Your task to perform on an android device: turn on the 24-hour format for clock Image 0: 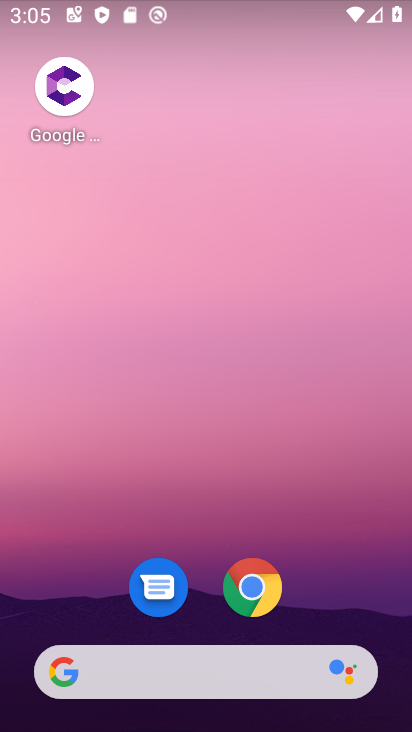
Step 0: drag from (52, 631) to (132, 252)
Your task to perform on an android device: turn on the 24-hour format for clock Image 1: 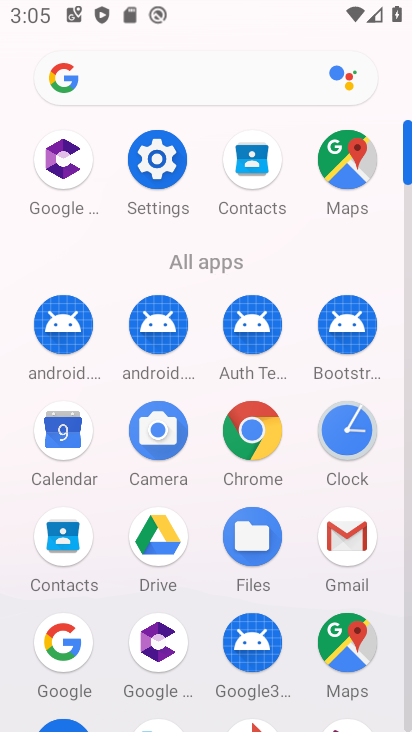
Step 1: click (366, 432)
Your task to perform on an android device: turn on the 24-hour format for clock Image 2: 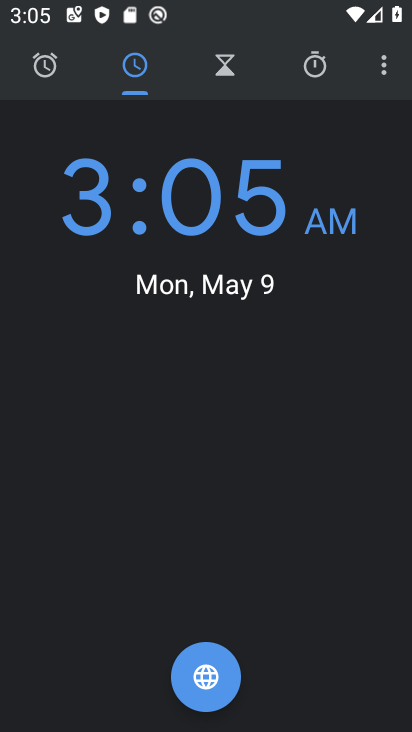
Step 2: click (386, 87)
Your task to perform on an android device: turn on the 24-hour format for clock Image 3: 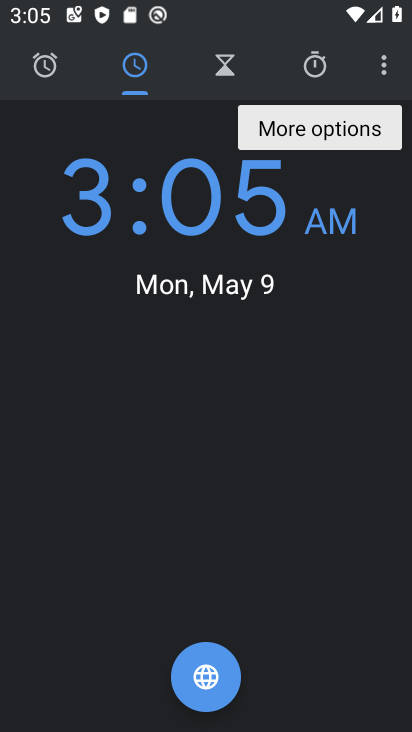
Step 3: click (383, 74)
Your task to perform on an android device: turn on the 24-hour format for clock Image 4: 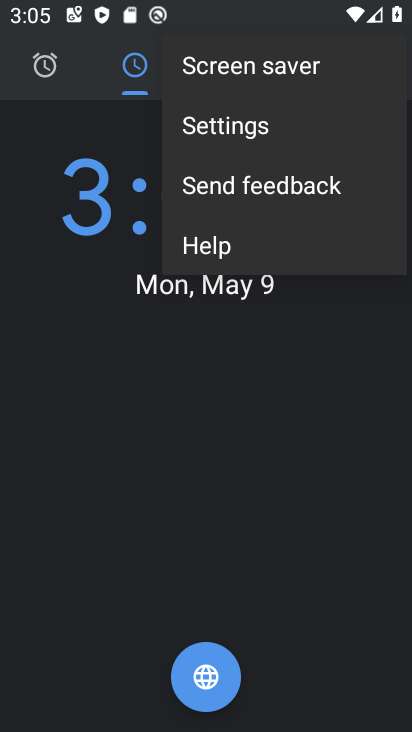
Step 4: click (340, 116)
Your task to perform on an android device: turn on the 24-hour format for clock Image 5: 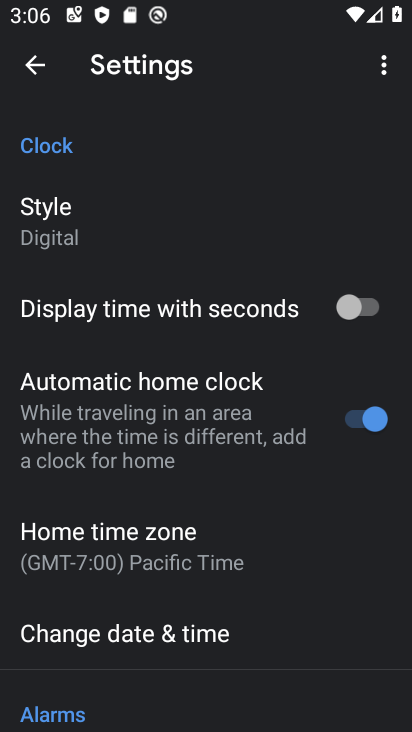
Step 5: click (233, 645)
Your task to perform on an android device: turn on the 24-hour format for clock Image 6: 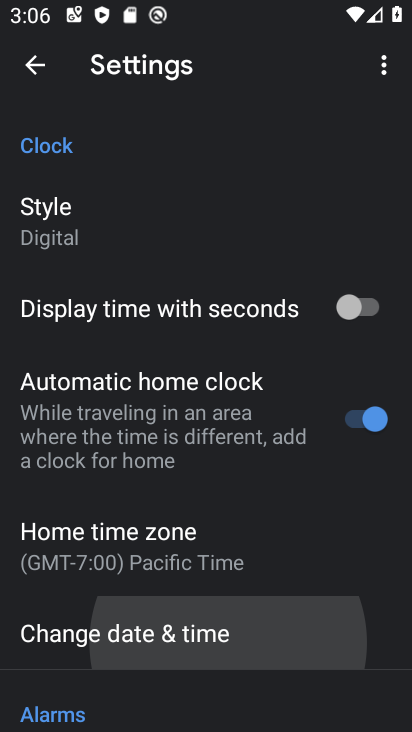
Step 6: click (233, 645)
Your task to perform on an android device: turn on the 24-hour format for clock Image 7: 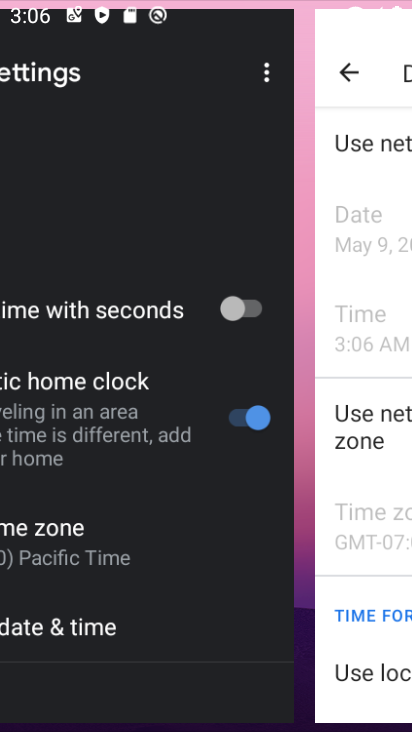
Step 7: click (233, 645)
Your task to perform on an android device: turn on the 24-hour format for clock Image 8: 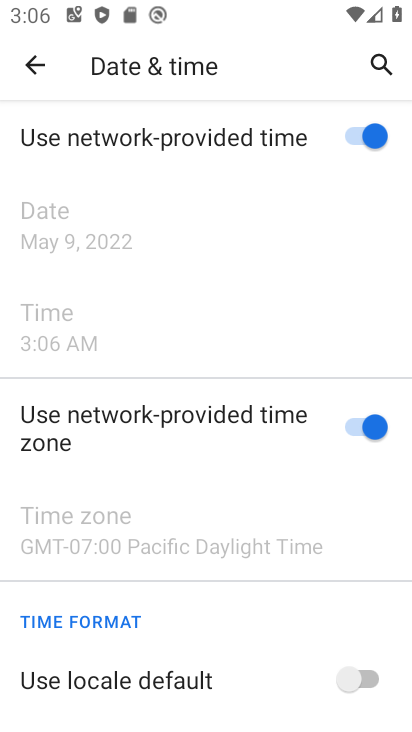
Step 8: drag from (270, 656) to (294, 430)
Your task to perform on an android device: turn on the 24-hour format for clock Image 9: 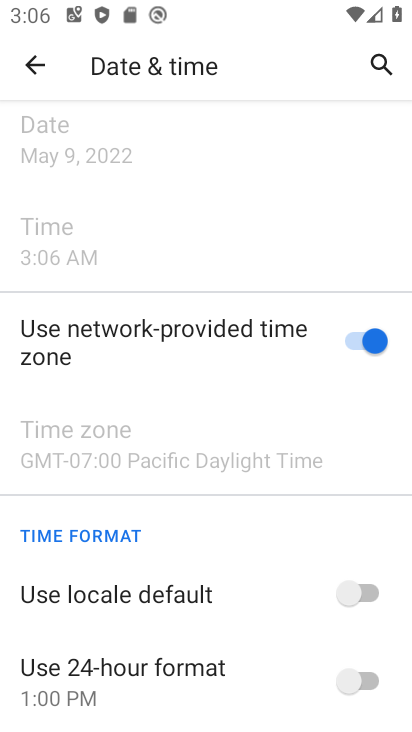
Step 9: drag from (237, 658) to (257, 510)
Your task to perform on an android device: turn on the 24-hour format for clock Image 10: 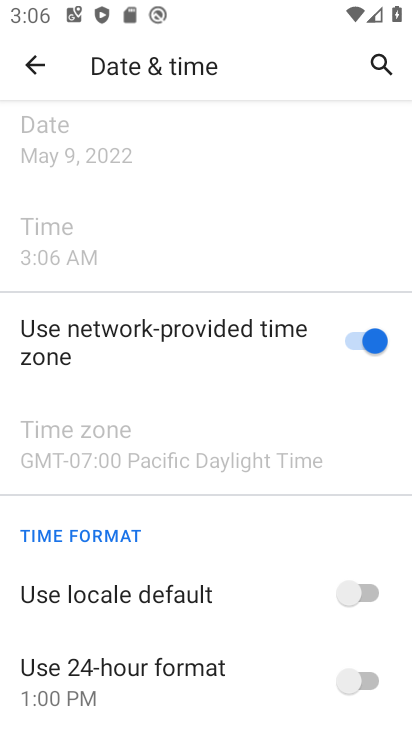
Step 10: click (378, 680)
Your task to perform on an android device: turn on the 24-hour format for clock Image 11: 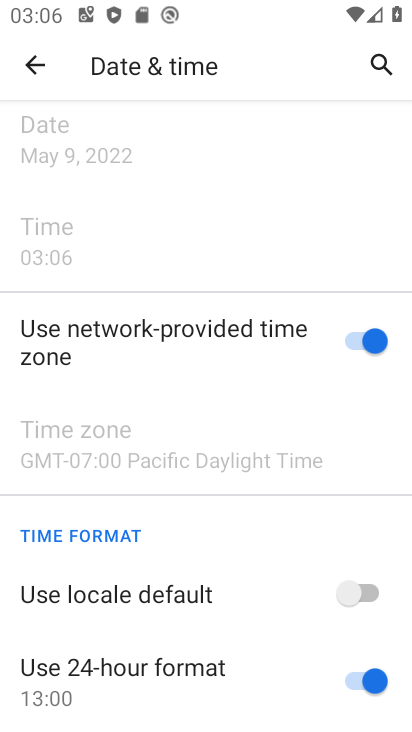
Step 11: task complete